Your task to perform on an android device: Search for pizza restaurants on Maps Image 0: 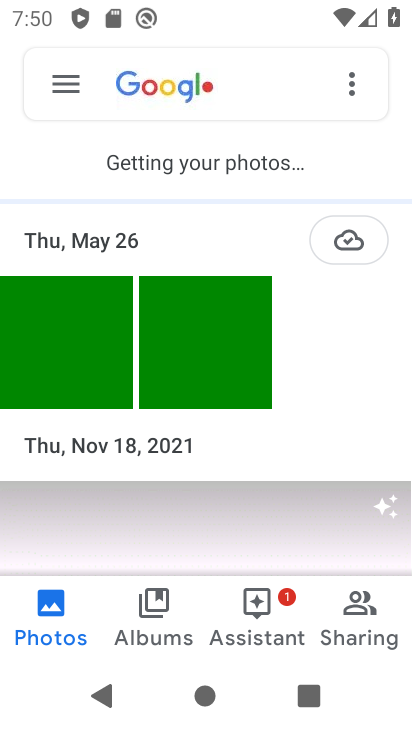
Step 0: press home button
Your task to perform on an android device: Search for pizza restaurants on Maps Image 1: 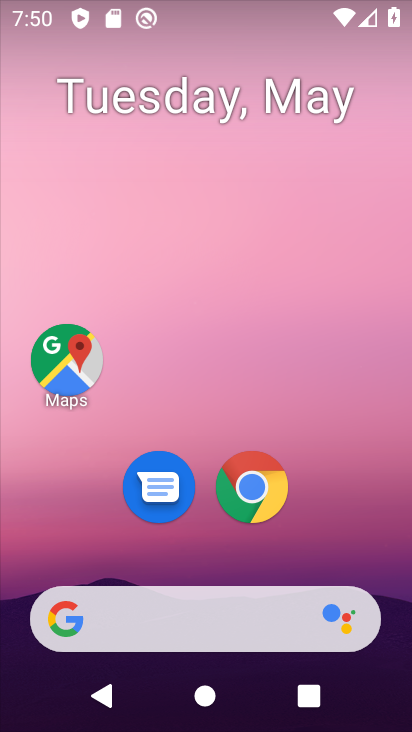
Step 1: drag from (381, 548) to (368, 173)
Your task to perform on an android device: Search for pizza restaurants on Maps Image 2: 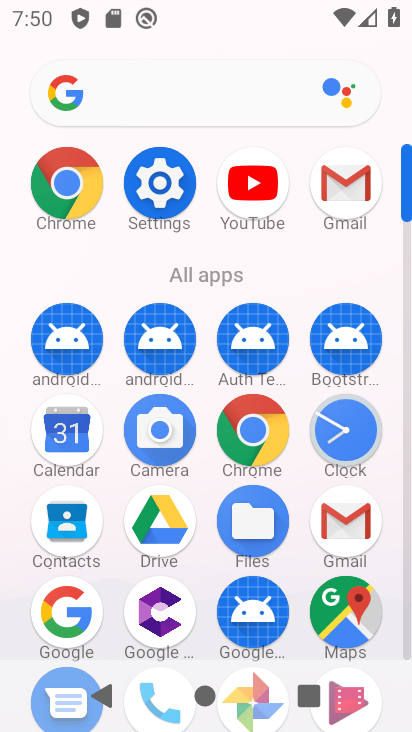
Step 2: click (360, 613)
Your task to perform on an android device: Search for pizza restaurants on Maps Image 3: 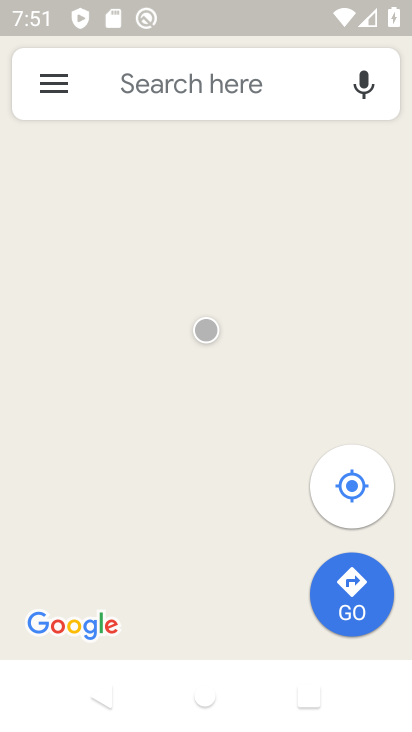
Step 3: click (163, 98)
Your task to perform on an android device: Search for pizza restaurants on Maps Image 4: 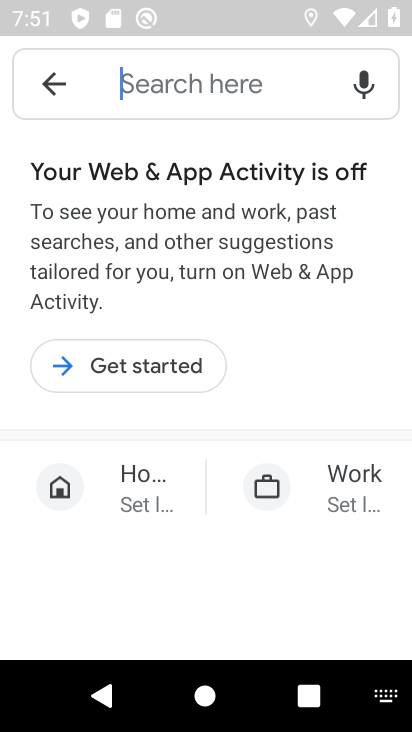
Step 4: type "pizzaa restaurants"
Your task to perform on an android device: Search for pizza restaurants on Maps Image 5: 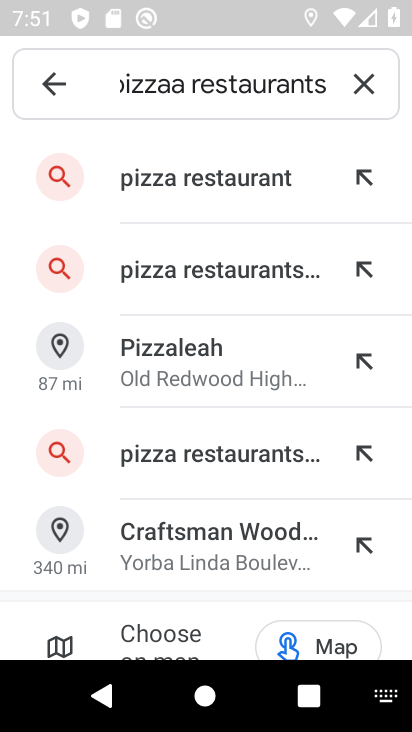
Step 5: click (238, 195)
Your task to perform on an android device: Search for pizza restaurants on Maps Image 6: 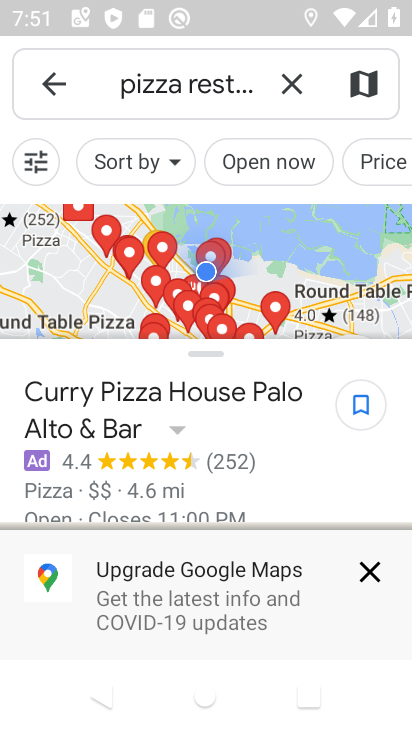
Step 6: task complete